Your task to perform on an android device: stop showing notifications on the lock screen Image 0: 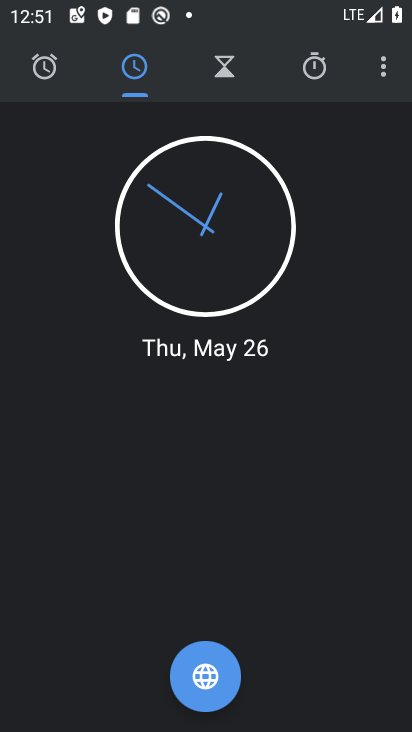
Step 0: press home button
Your task to perform on an android device: stop showing notifications on the lock screen Image 1: 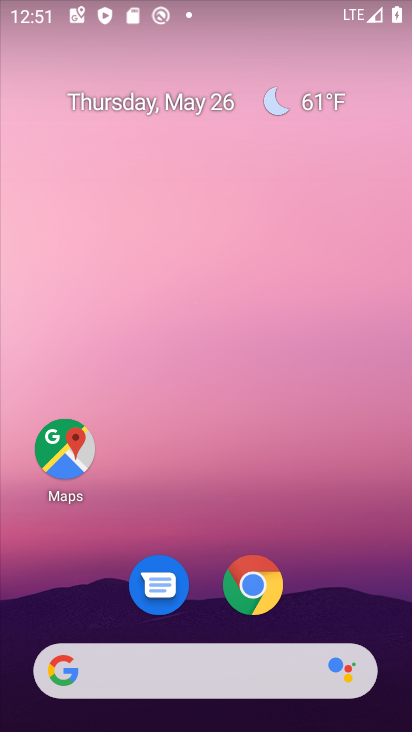
Step 1: drag from (298, 512) to (253, 39)
Your task to perform on an android device: stop showing notifications on the lock screen Image 2: 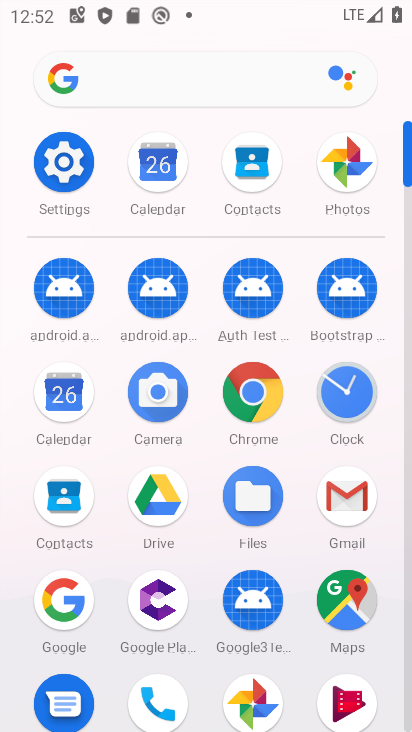
Step 2: click (76, 158)
Your task to perform on an android device: stop showing notifications on the lock screen Image 3: 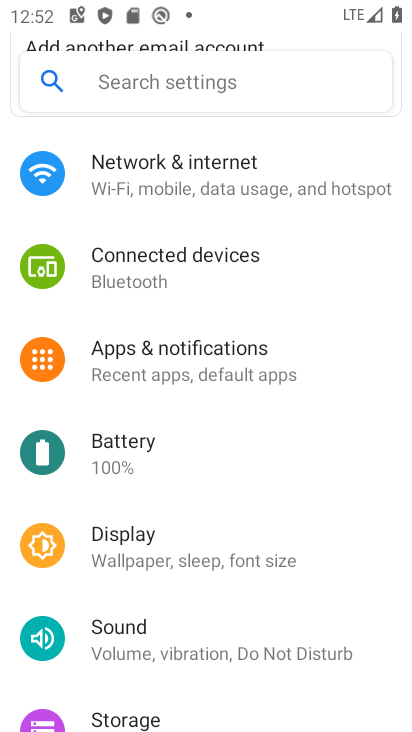
Step 3: click (165, 340)
Your task to perform on an android device: stop showing notifications on the lock screen Image 4: 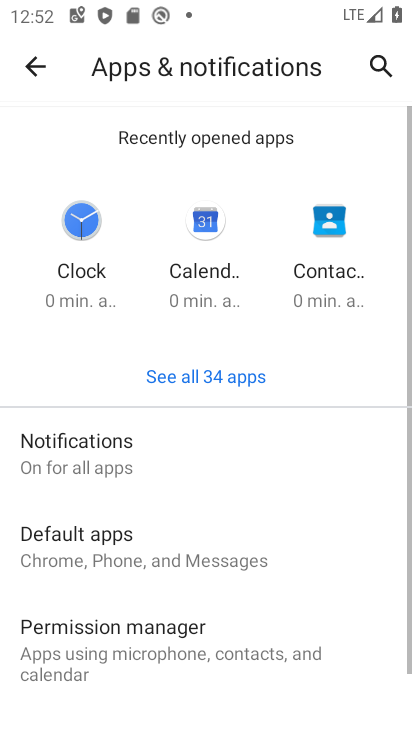
Step 4: click (224, 460)
Your task to perform on an android device: stop showing notifications on the lock screen Image 5: 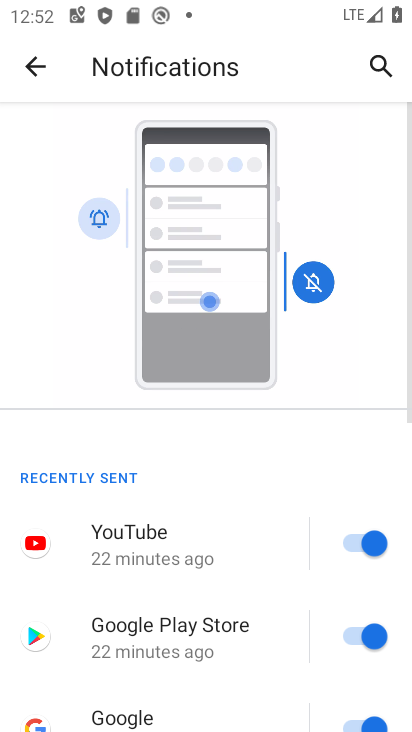
Step 5: drag from (209, 578) to (249, 82)
Your task to perform on an android device: stop showing notifications on the lock screen Image 6: 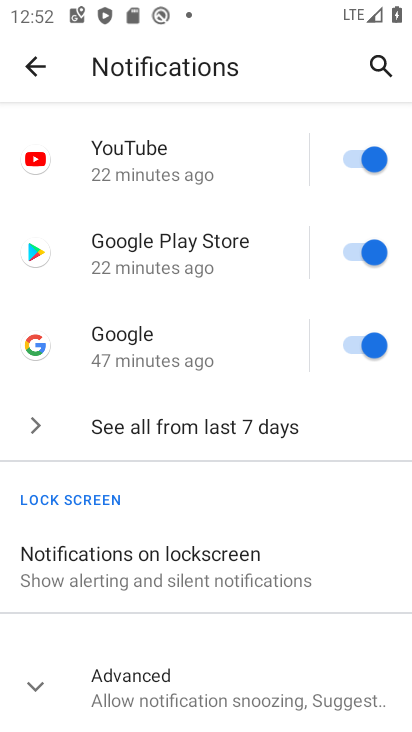
Step 6: click (154, 566)
Your task to perform on an android device: stop showing notifications on the lock screen Image 7: 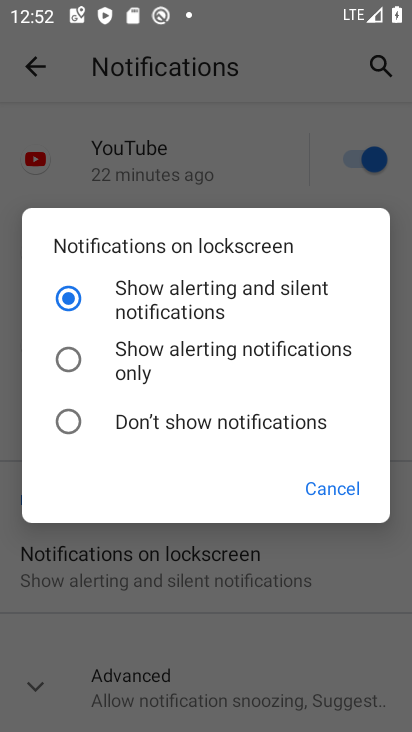
Step 7: click (67, 421)
Your task to perform on an android device: stop showing notifications on the lock screen Image 8: 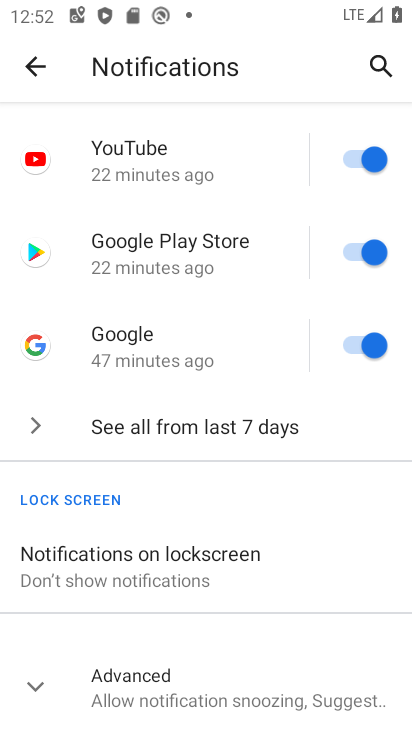
Step 8: task complete